Your task to perform on an android device: turn off wifi Image 0: 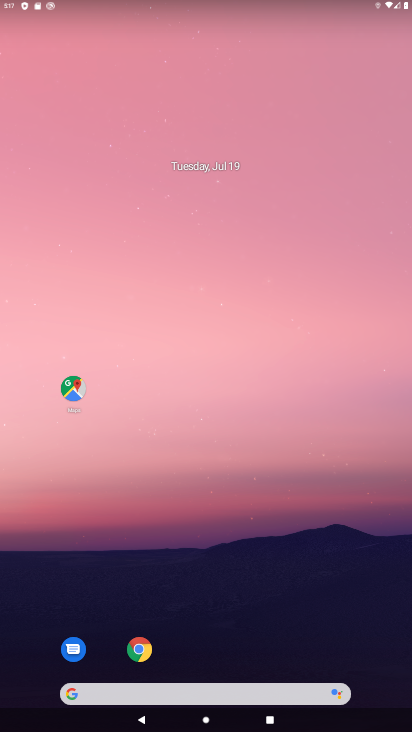
Step 0: drag from (325, 637) to (222, 85)
Your task to perform on an android device: turn off wifi Image 1: 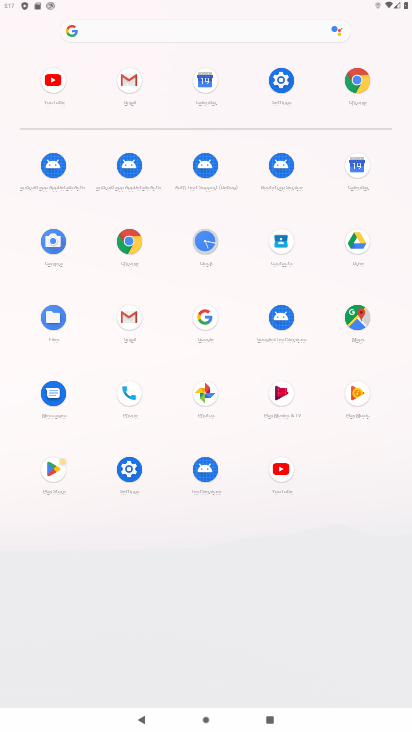
Step 1: click (282, 72)
Your task to perform on an android device: turn off wifi Image 2: 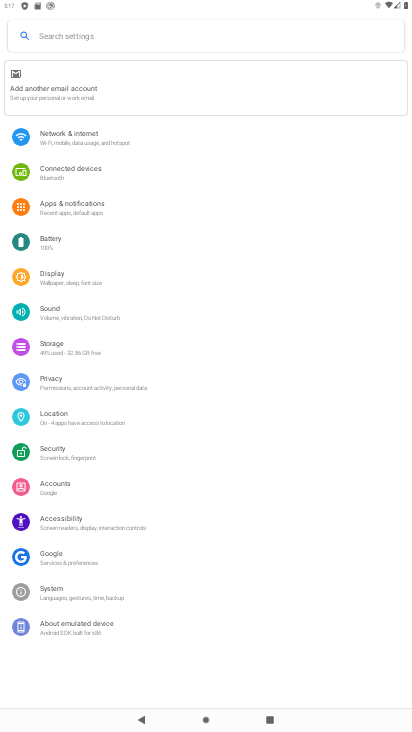
Step 2: click (77, 147)
Your task to perform on an android device: turn off wifi Image 3: 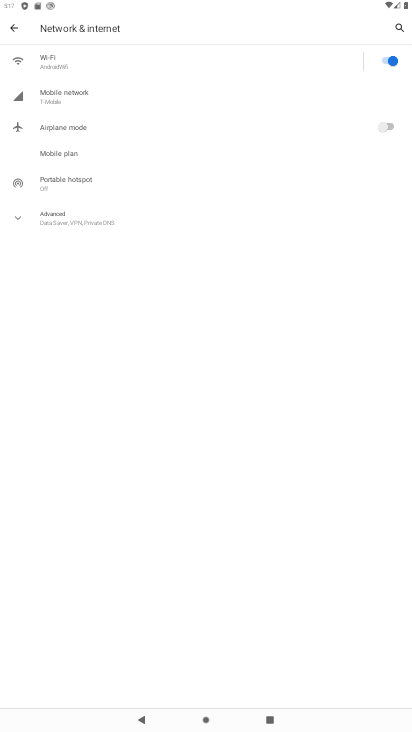
Step 3: click (75, 63)
Your task to perform on an android device: turn off wifi Image 4: 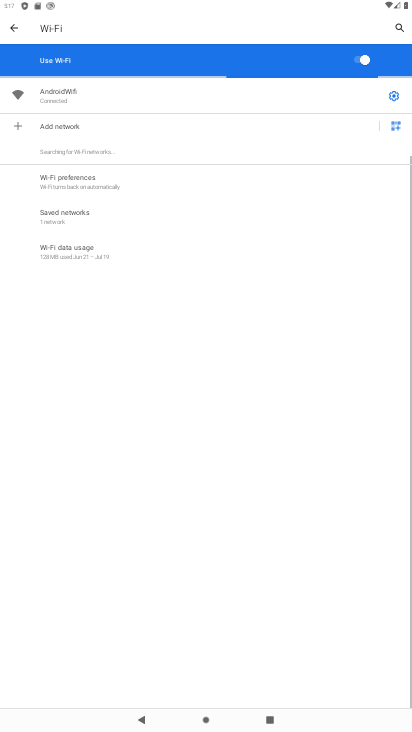
Step 4: click (372, 54)
Your task to perform on an android device: turn off wifi Image 5: 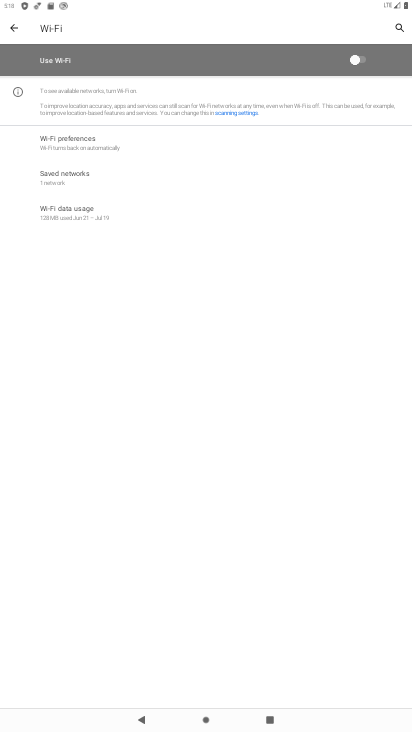
Step 5: task complete